Your task to perform on an android device: Turn on the flashlight Image 0: 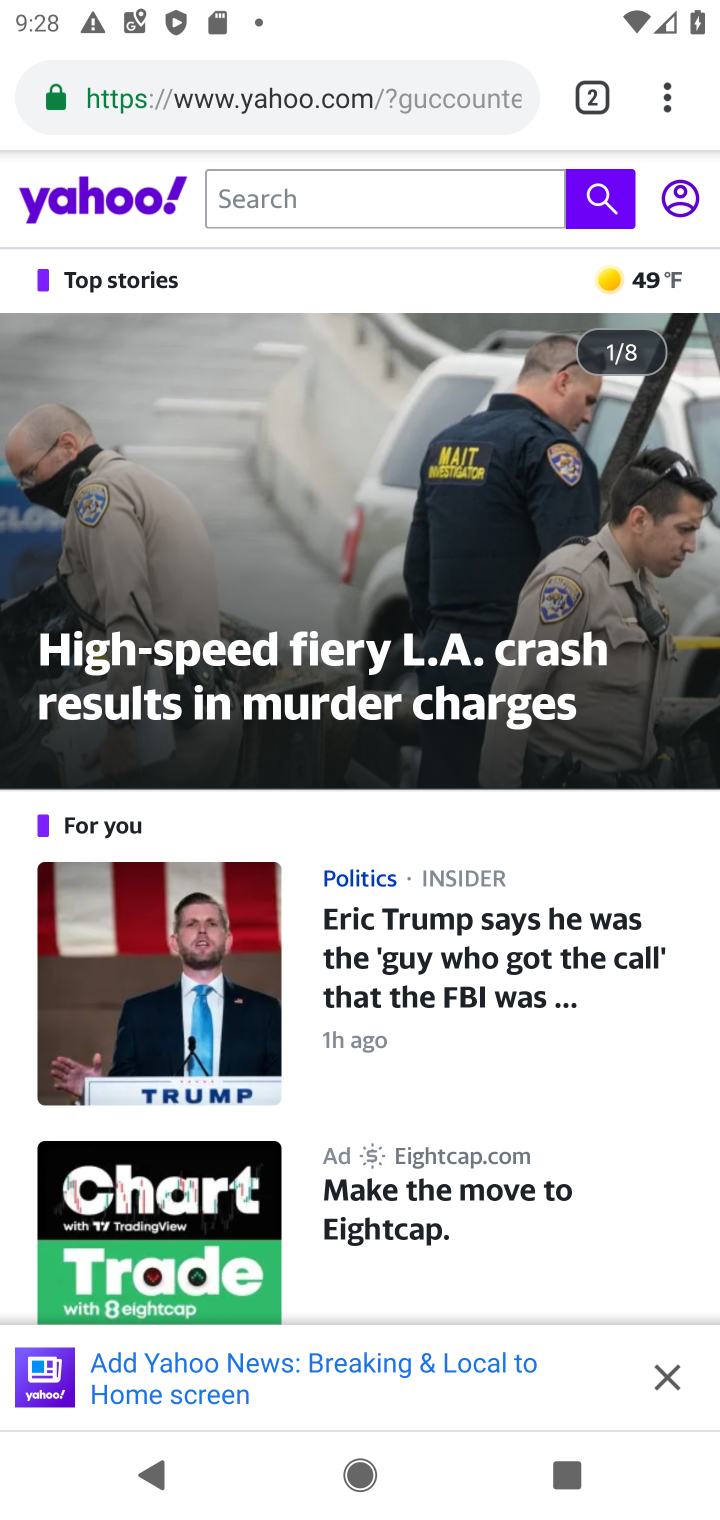
Step 0: press home button
Your task to perform on an android device: Turn on the flashlight Image 1: 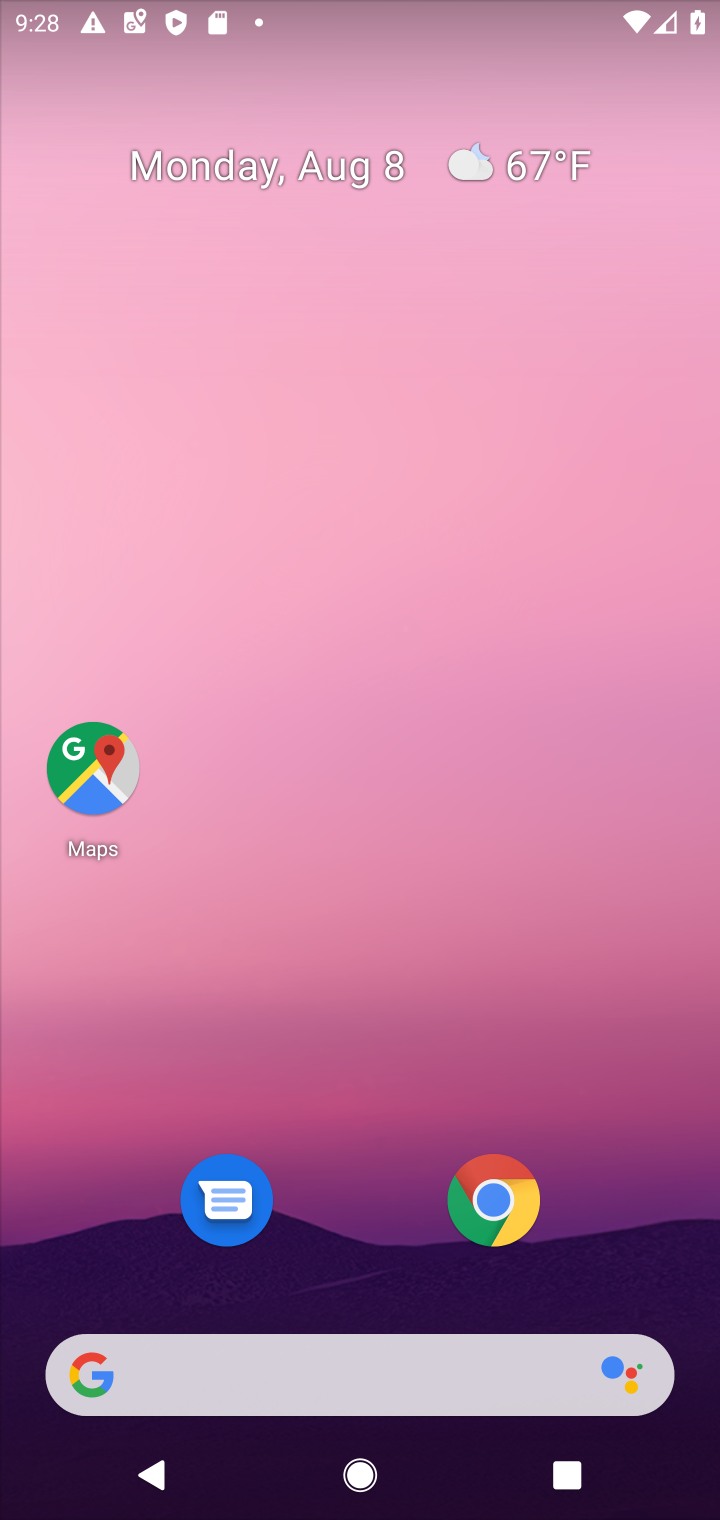
Step 1: task complete